Your task to perform on an android device: Is it going to rain this weekend? Image 0: 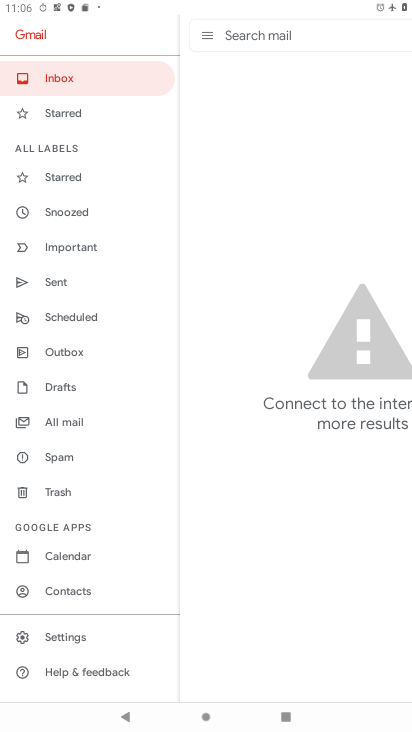
Step 0: click (401, 446)
Your task to perform on an android device: Is it going to rain this weekend? Image 1: 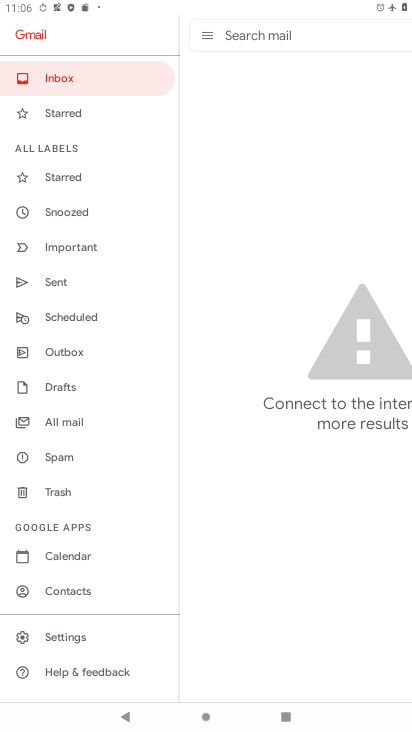
Step 1: press back button
Your task to perform on an android device: Is it going to rain this weekend? Image 2: 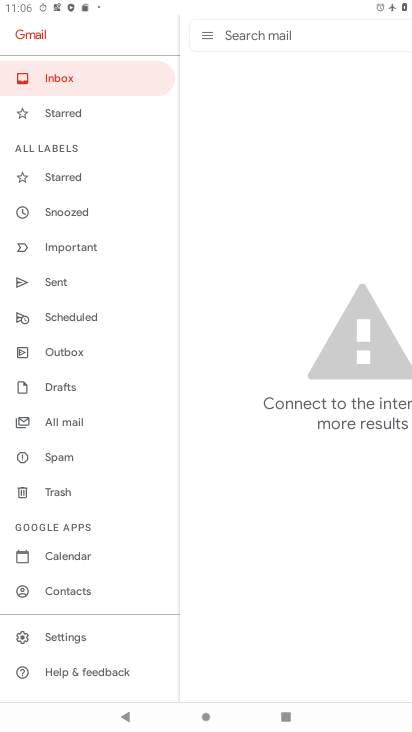
Step 2: press back button
Your task to perform on an android device: Is it going to rain this weekend? Image 3: 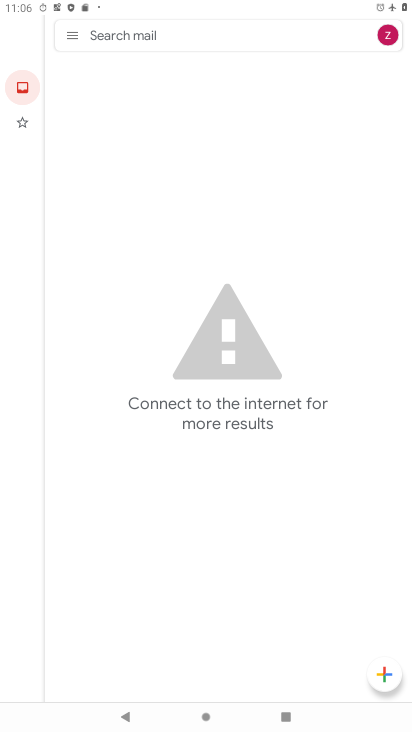
Step 3: press back button
Your task to perform on an android device: Is it going to rain this weekend? Image 4: 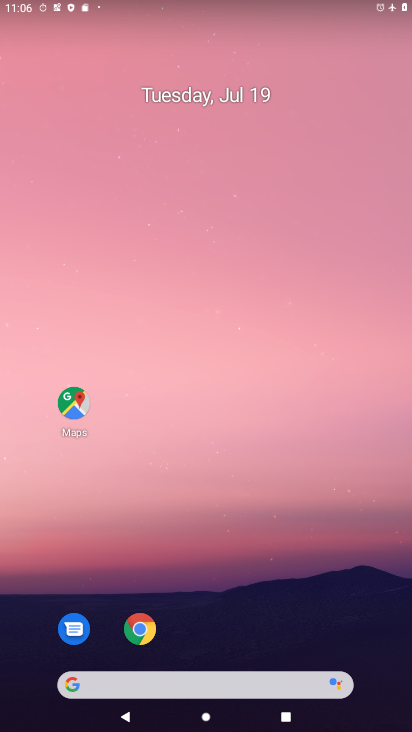
Step 4: drag from (192, 600) to (175, 190)
Your task to perform on an android device: Is it going to rain this weekend? Image 5: 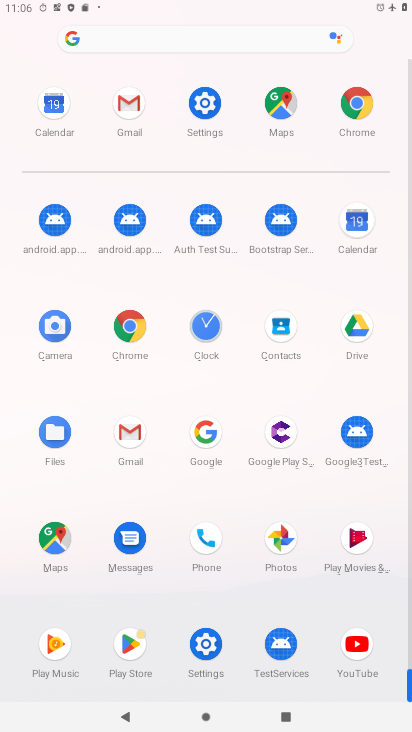
Step 5: click (198, 104)
Your task to perform on an android device: Is it going to rain this weekend? Image 6: 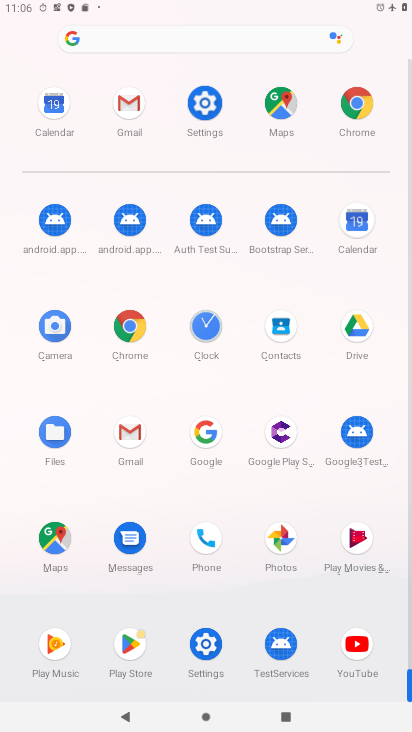
Step 6: click (198, 104)
Your task to perform on an android device: Is it going to rain this weekend? Image 7: 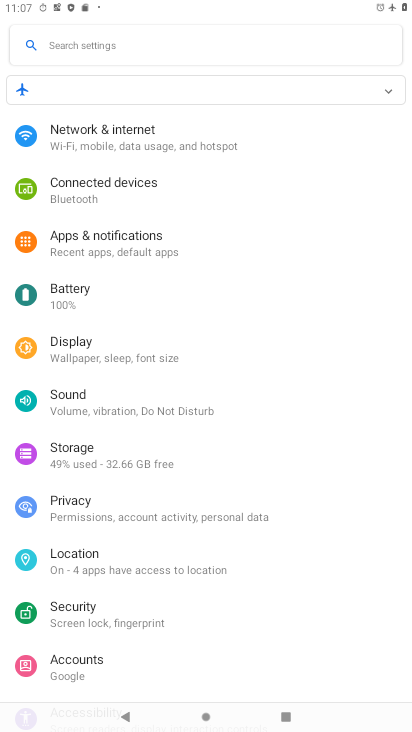
Step 7: click (98, 128)
Your task to perform on an android device: Is it going to rain this weekend? Image 8: 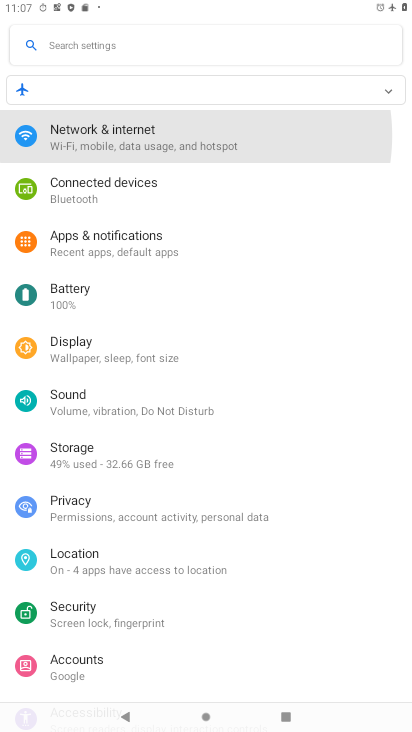
Step 8: click (103, 126)
Your task to perform on an android device: Is it going to rain this weekend? Image 9: 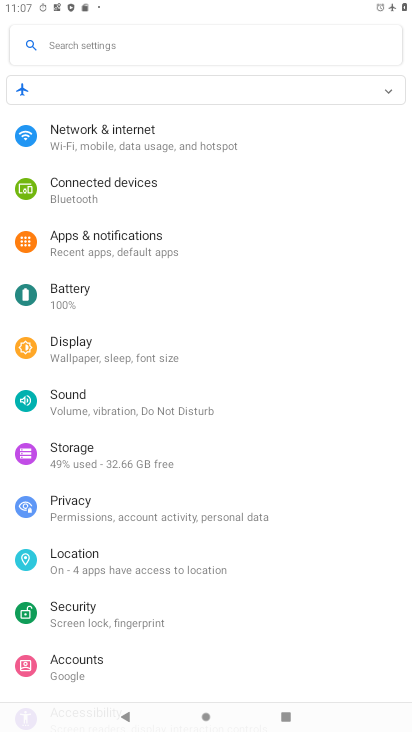
Step 9: click (106, 125)
Your task to perform on an android device: Is it going to rain this weekend? Image 10: 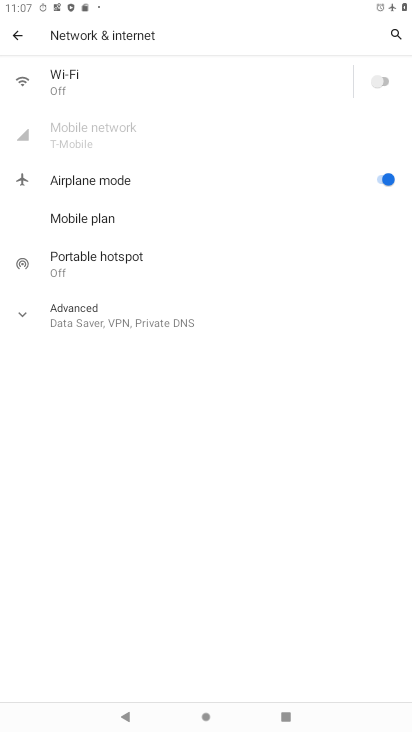
Step 10: click (391, 75)
Your task to perform on an android device: Is it going to rain this weekend? Image 11: 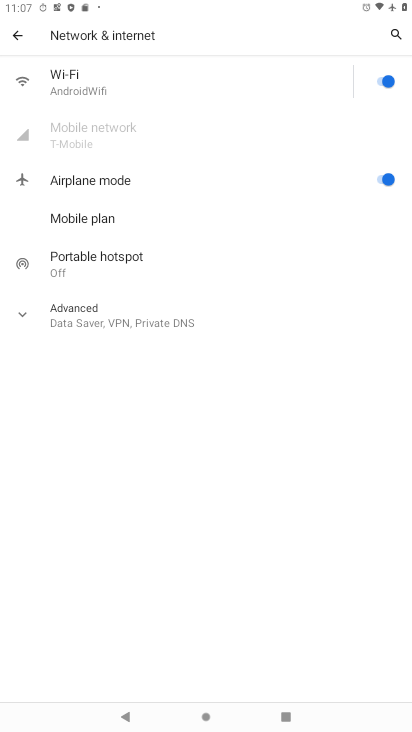
Step 11: click (387, 183)
Your task to perform on an android device: Is it going to rain this weekend? Image 12: 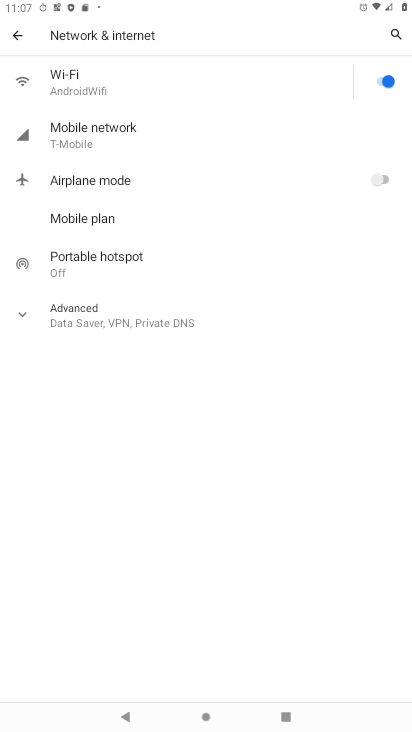
Step 12: press back button
Your task to perform on an android device: Is it going to rain this weekend? Image 13: 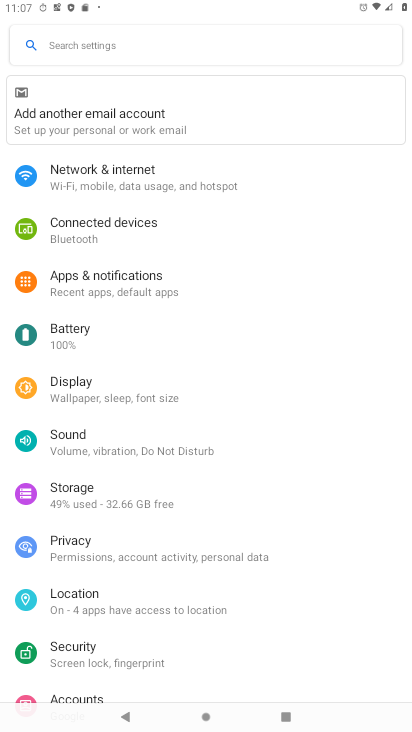
Step 13: drag from (112, 574) to (110, 165)
Your task to perform on an android device: Is it going to rain this weekend? Image 14: 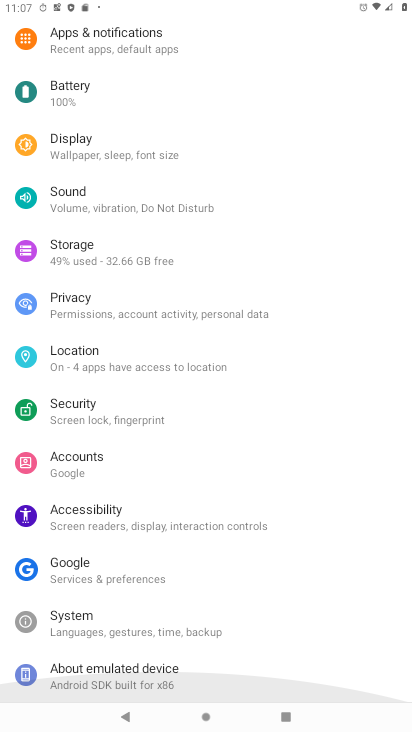
Step 14: drag from (159, 394) to (160, 252)
Your task to perform on an android device: Is it going to rain this weekend? Image 15: 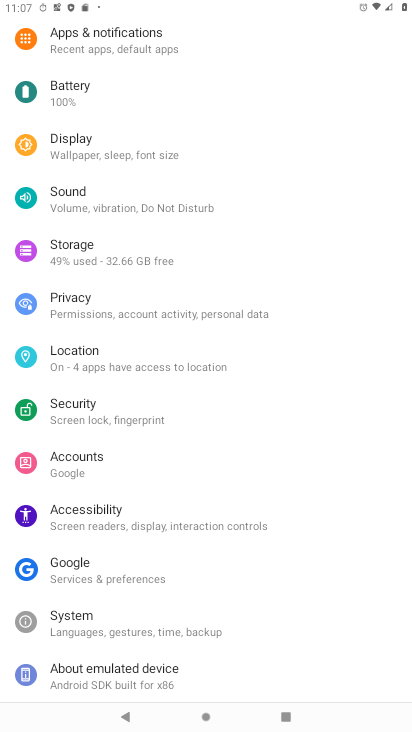
Step 15: press home button
Your task to perform on an android device: Is it going to rain this weekend? Image 16: 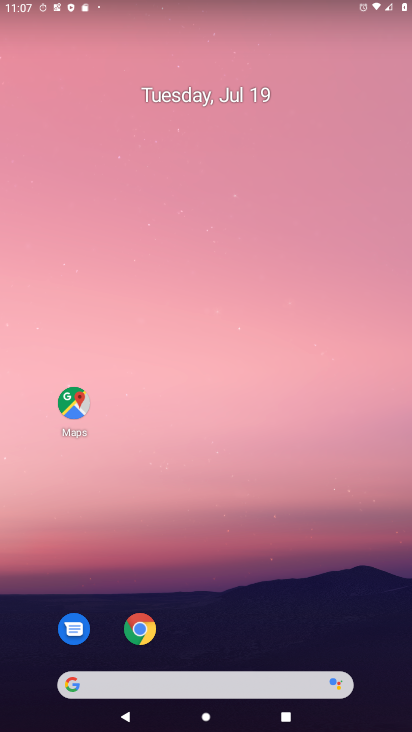
Step 16: drag from (214, 595) to (180, 187)
Your task to perform on an android device: Is it going to rain this weekend? Image 17: 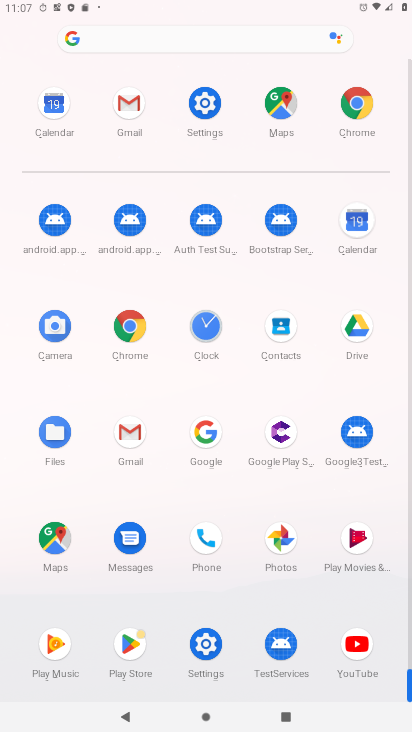
Step 17: click (357, 102)
Your task to perform on an android device: Is it going to rain this weekend? Image 18: 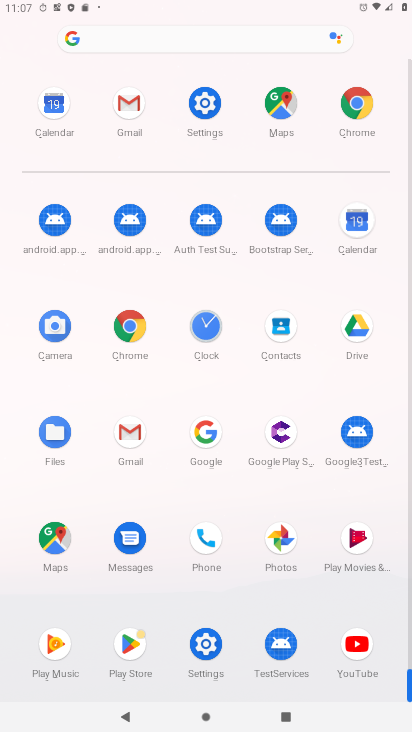
Step 18: click (357, 102)
Your task to perform on an android device: Is it going to rain this weekend? Image 19: 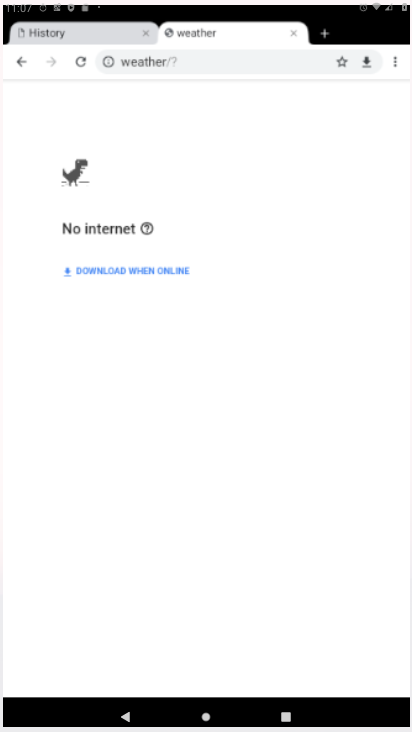
Step 19: click (357, 102)
Your task to perform on an android device: Is it going to rain this weekend? Image 20: 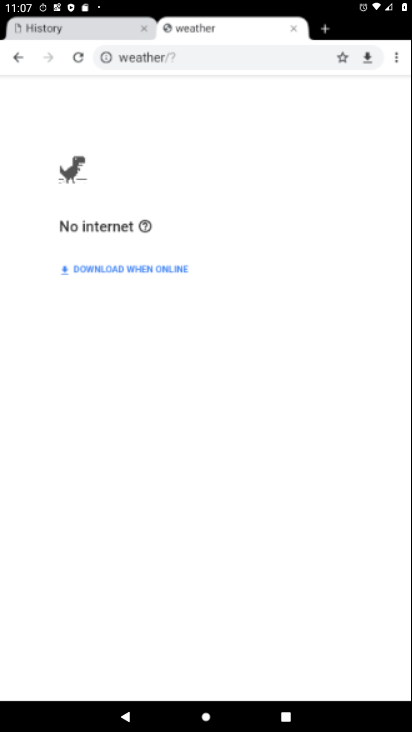
Step 20: click (357, 102)
Your task to perform on an android device: Is it going to rain this weekend? Image 21: 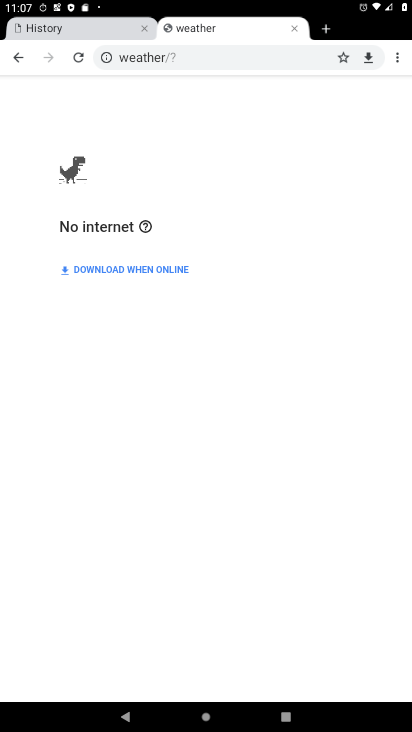
Step 21: click (69, 24)
Your task to perform on an android device: Is it going to rain this weekend? Image 22: 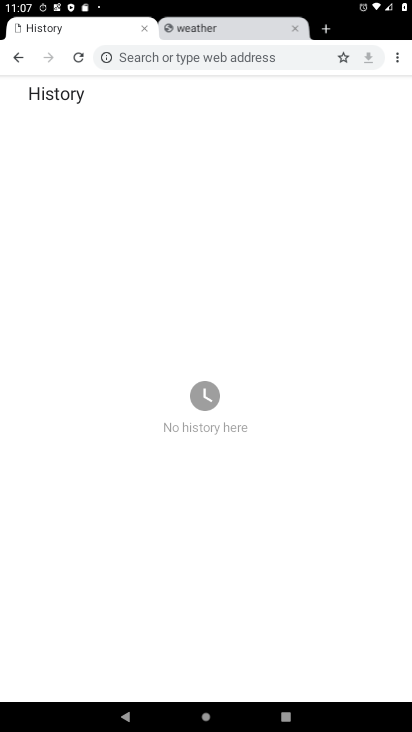
Step 22: click (163, 60)
Your task to perform on an android device: Is it going to rain this weekend? Image 23: 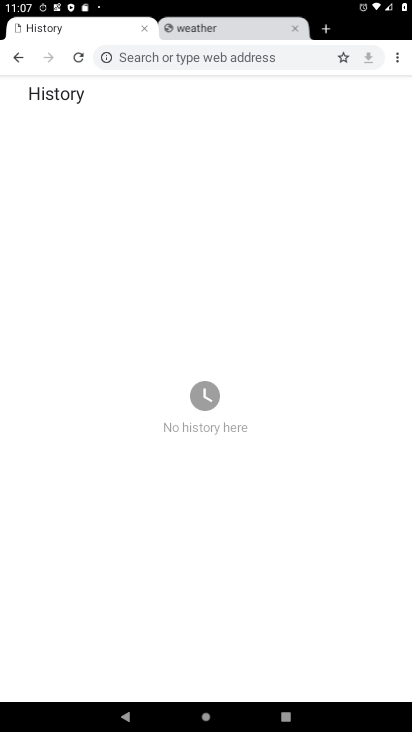
Step 23: click (163, 60)
Your task to perform on an android device: Is it going to rain this weekend? Image 24: 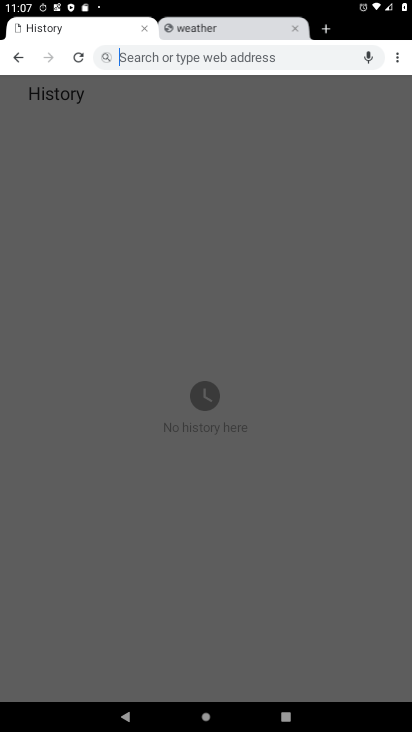
Step 24: click (166, 58)
Your task to perform on an android device: Is it going to rain this weekend? Image 25: 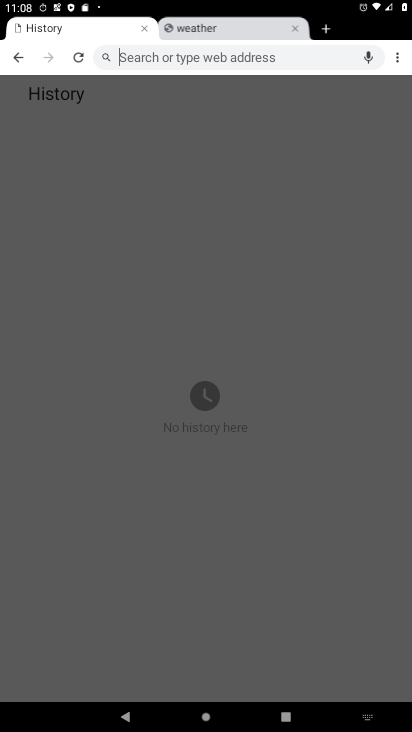
Step 25: type "is it going to rain this weekend?"
Your task to perform on an android device: Is it going to rain this weekend? Image 26: 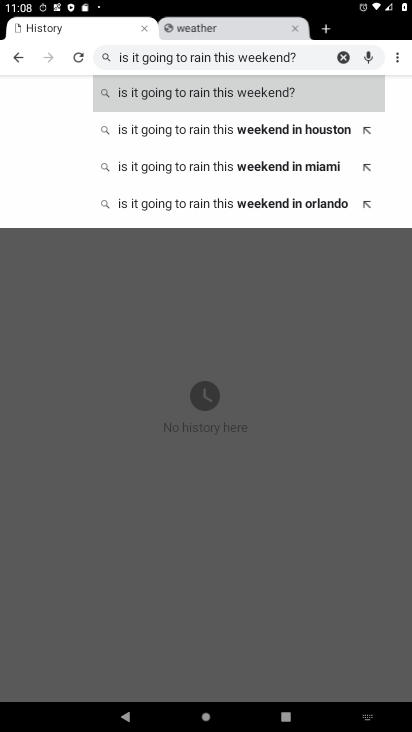
Step 26: click (282, 85)
Your task to perform on an android device: Is it going to rain this weekend? Image 27: 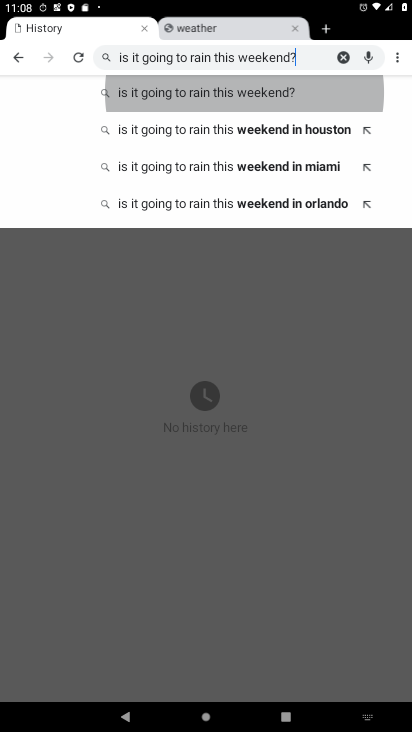
Step 27: click (279, 86)
Your task to perform on an android device: Is it going to rain this weekend? Image 28: 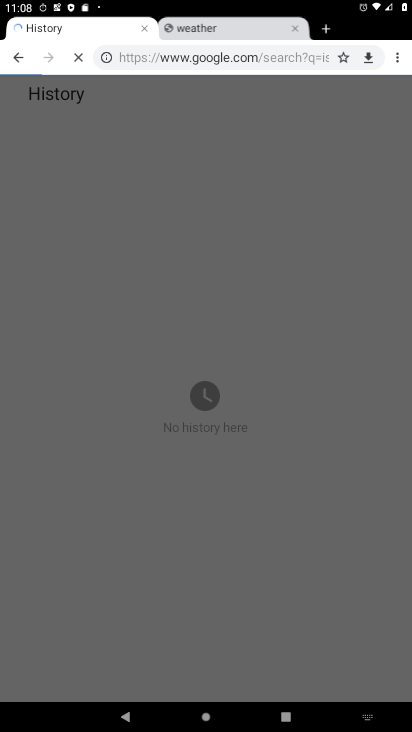
Step 28: click (279, 86)
Your task to perform on an android device: Is it going to rain this weekend? Image 29: 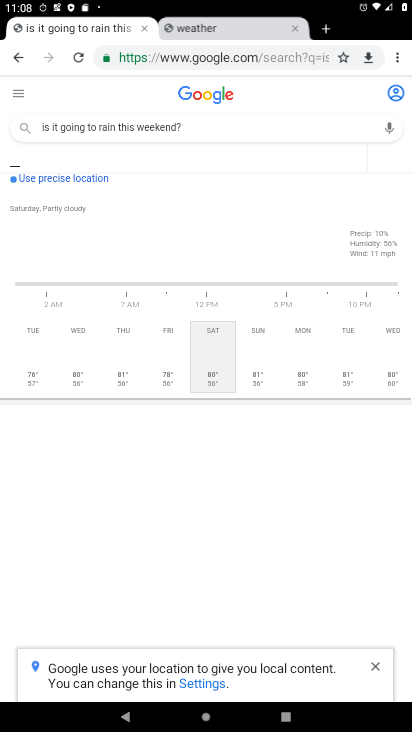
Step 29: task complete